Your task to perform on an android device: check android version Image 0: 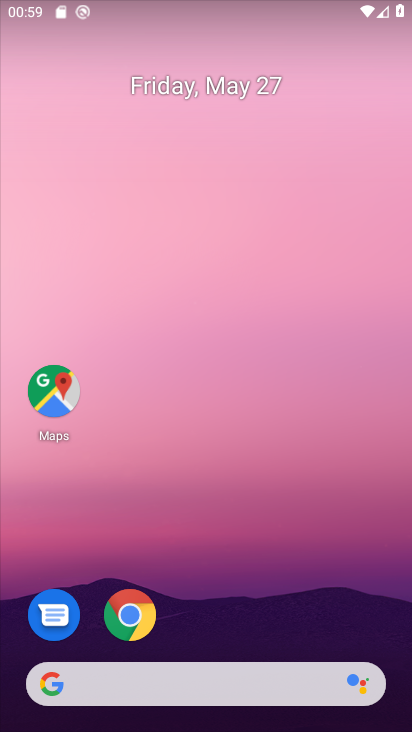
Step 0: drag from (392, 635) to (376, 224)
Your task to perform on an android device: check android version Image 1: 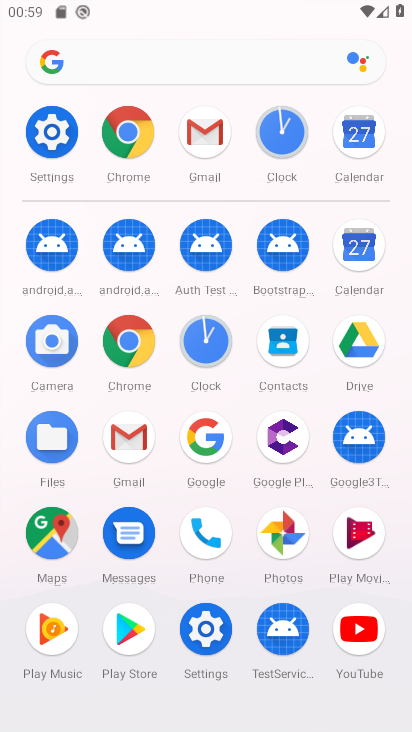
Step 1: click (207, 634)
Your task to perform on an android device: check android version Image 2: 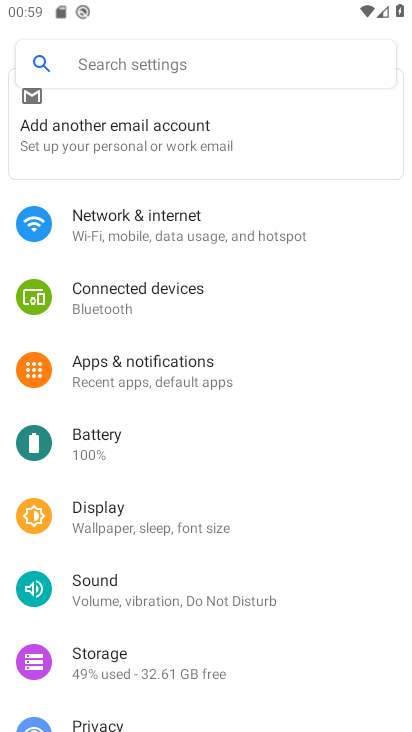
Step 2: drag from (330, 365) to (330, 435)
Your task to perform on an android device: check android version Image 3: 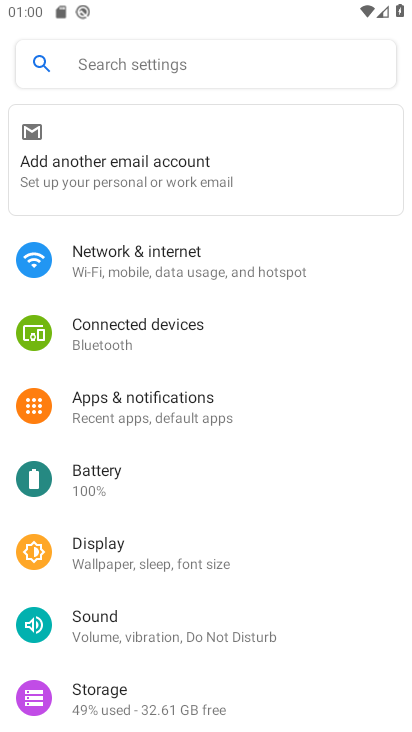
Step 3: drag from (351, 358) to (352, 392)
Your task to perform on an android device: check android version Image 4: 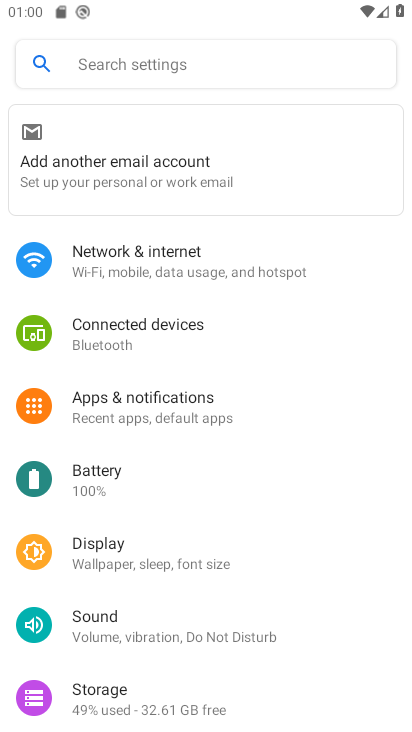
Step 4: drag from (354, 332) to (357, 445)
Your task to perform on an android device: check android version Image 5: 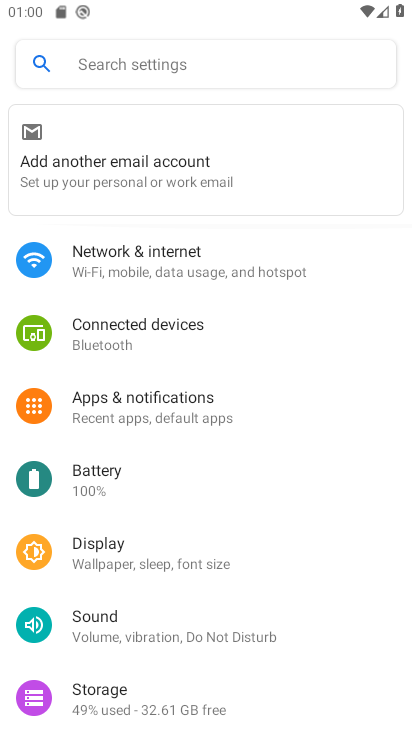
Step 5: drag from (350, 507) to (345, 427)
Your task to perform on an android device: check android version Image 6: 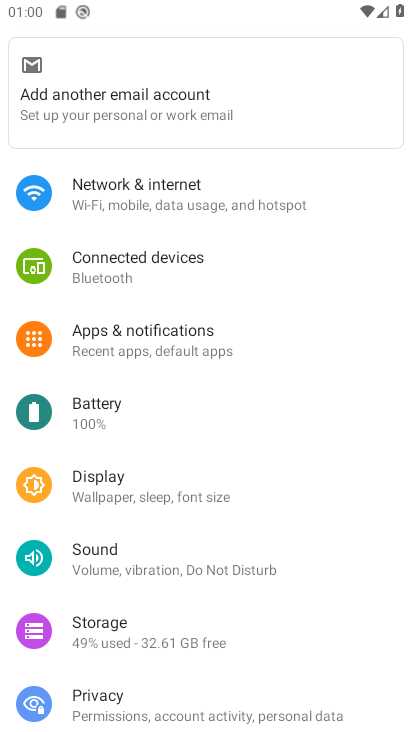
Step 6: drag from (347, 526) to (353, 487)
Your task to perform on an android device: check android version Image 7: 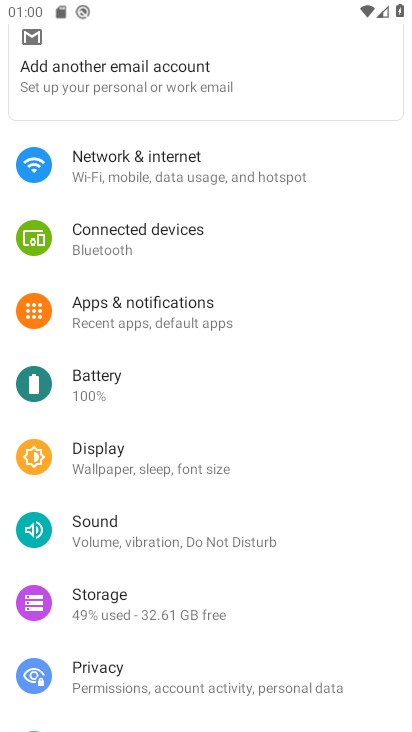
Step 7: drag from (350, 560) to (350, 498)
Your task to perform on an android device: check android version Image 8: 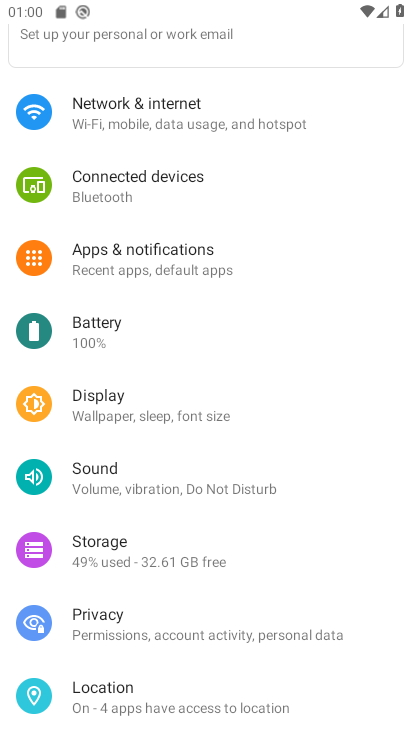
Step 8: drag from (357, 551) to (359, 498)
Your task to perform on an android device: check android version Image 9: 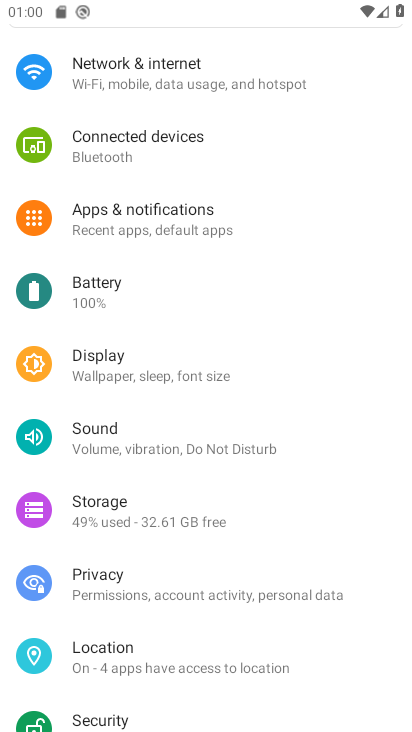
Step 9: drag from (325, 632) to (326, 541)
Your task to perform on an android device: check android version Image 10: 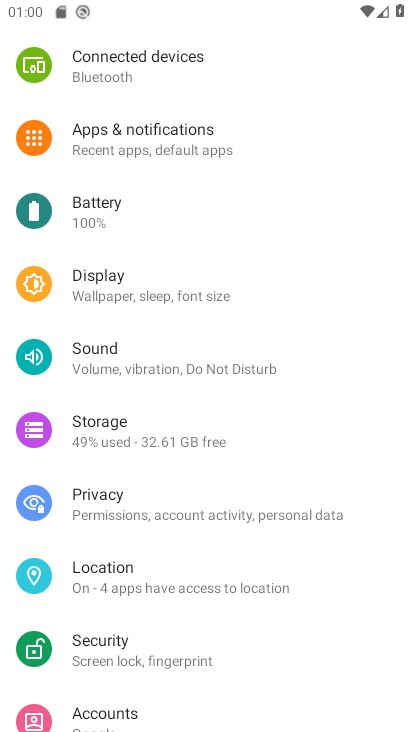
Step 10: drag from (324, 603) to (335, 537)
Your task to perform on an android device: check android version Image 11: 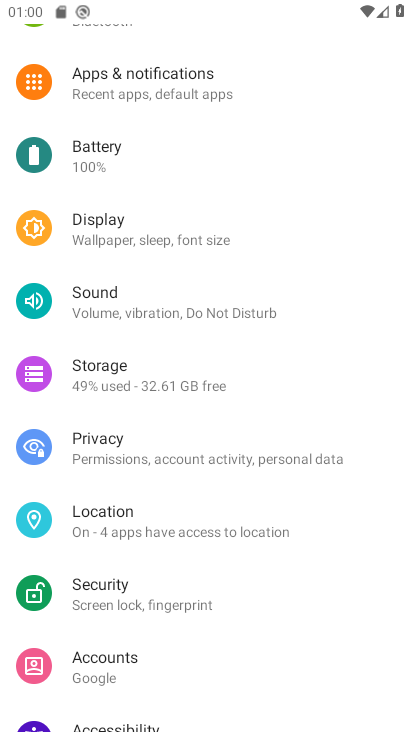
Step 11: drag from (336, 588) to (339, 514)
Your task to perform on an android device: check android version Image 12: 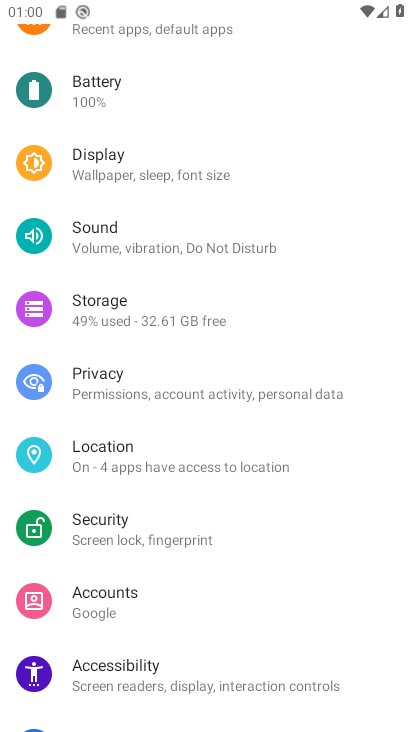
Step 12: drag from (326, 592) to (335, 541)
Your task to perform on an android device: check android version Image 13: 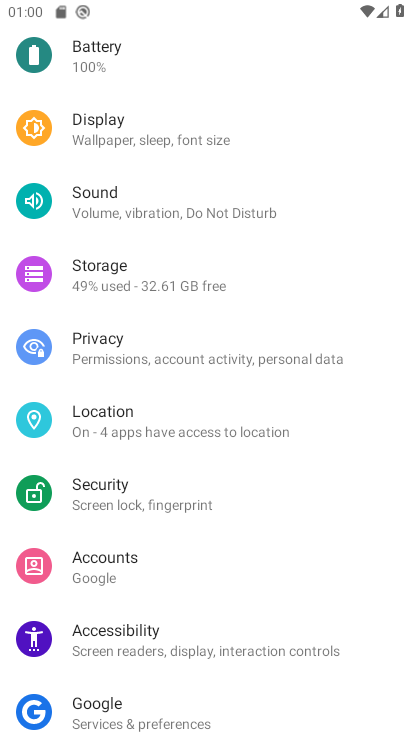
Step 13: drag from (278, 615) to (296, 507)
Your task to perform on an android device: check android version Image 14: 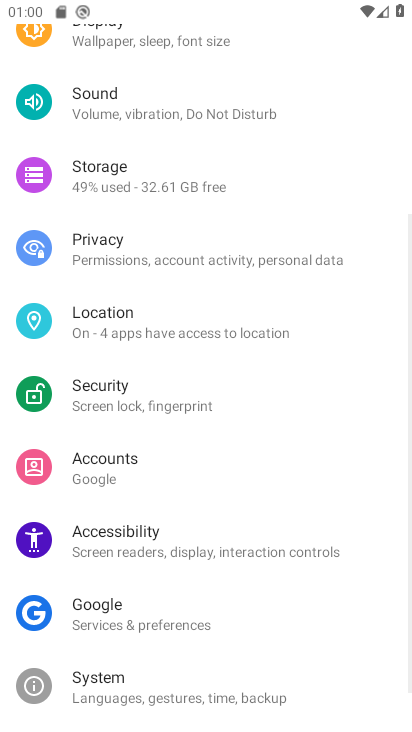
Step 14: drag from (291, 621) to (319, 498)
Your task to perform on an android device: check android version Image 15: 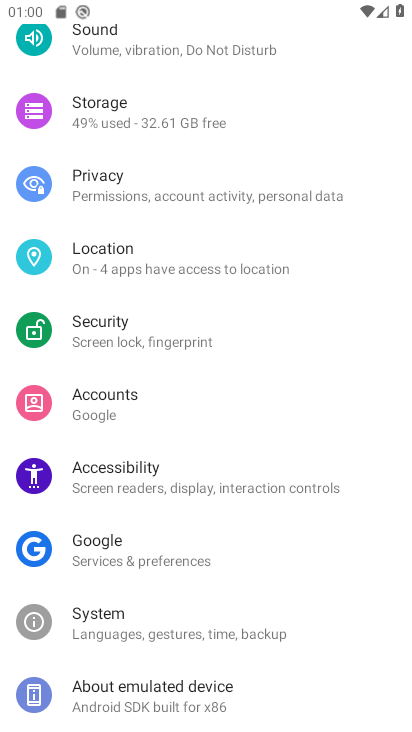
Step 15: click (286, 619)
Your task to perform on an android device: check android version Image 16: 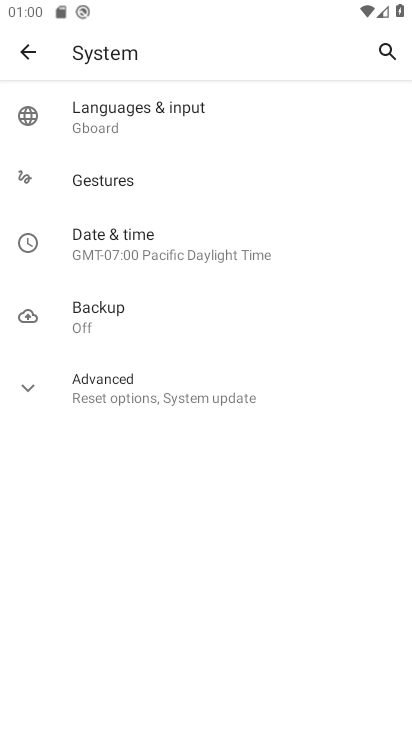
Step 16: click (264, 389)
Your task to perform on an android device: check android version Image 17: 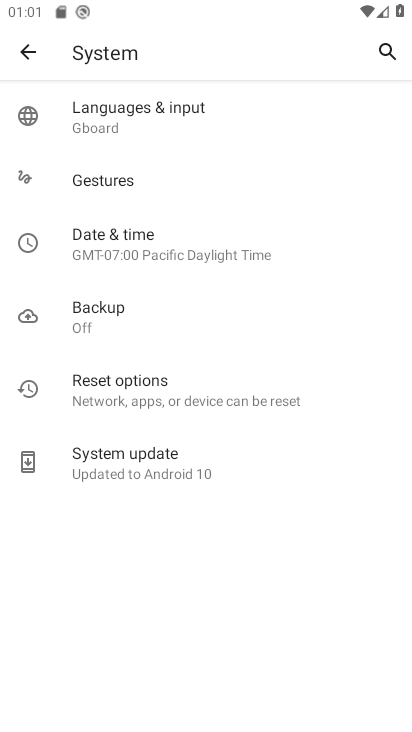
Step 17: click (210, 476)
Your task to perform on an android device: check android version Image 18: 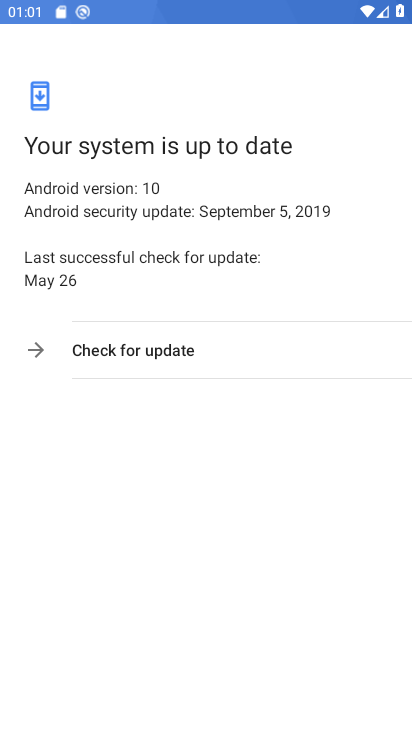
Step 18: task complete